Your task to perform on an android device: open app "HBO Max: Stream TV & Movies" (install if not already installed) and enter user name: "faring@outlook.com" and password: "appropriately" Image 0: 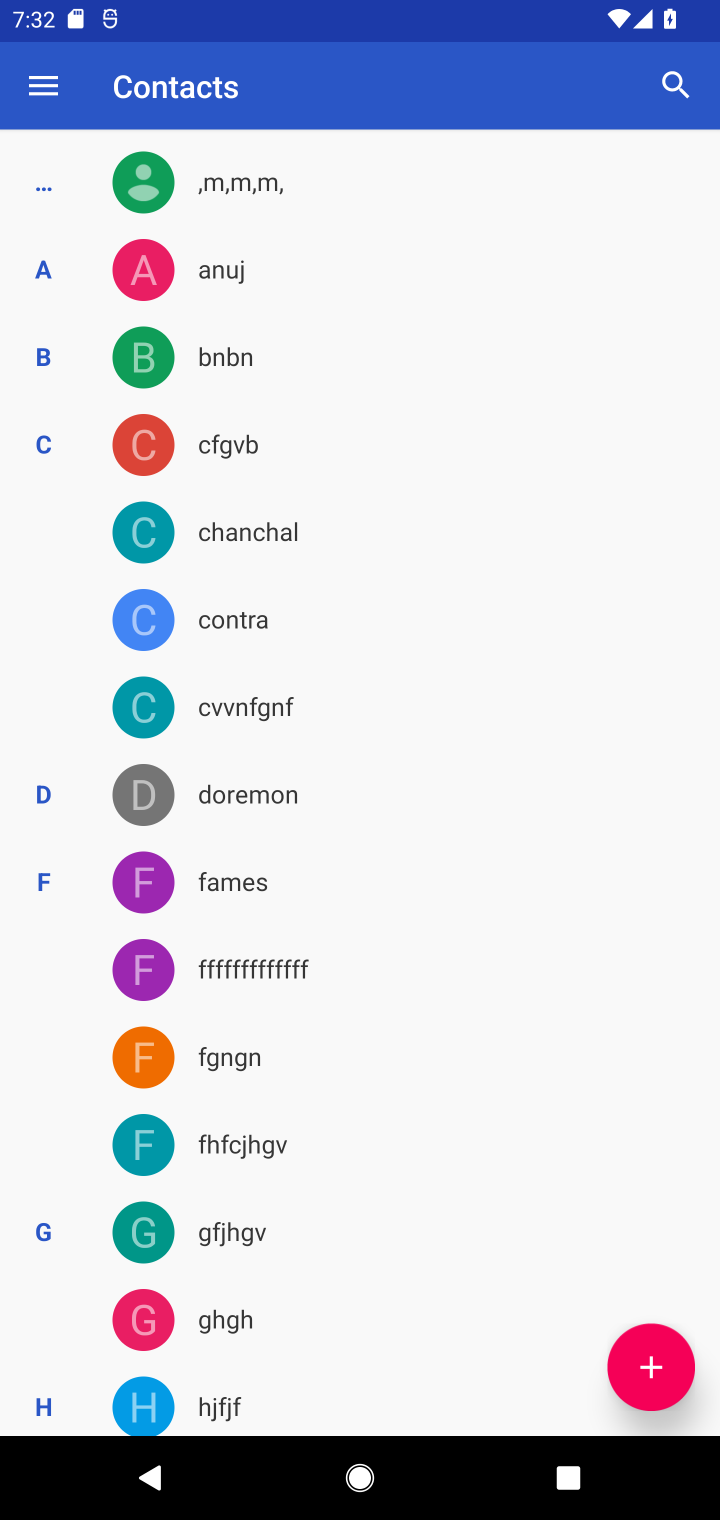
Step 0: press home button
Your task to perform on an android device: open app "HBO Max: Stream TV & Movies" (install if not already installed) and enter user name: "faring@outlook.com" and password: "appropriately" Image 1: 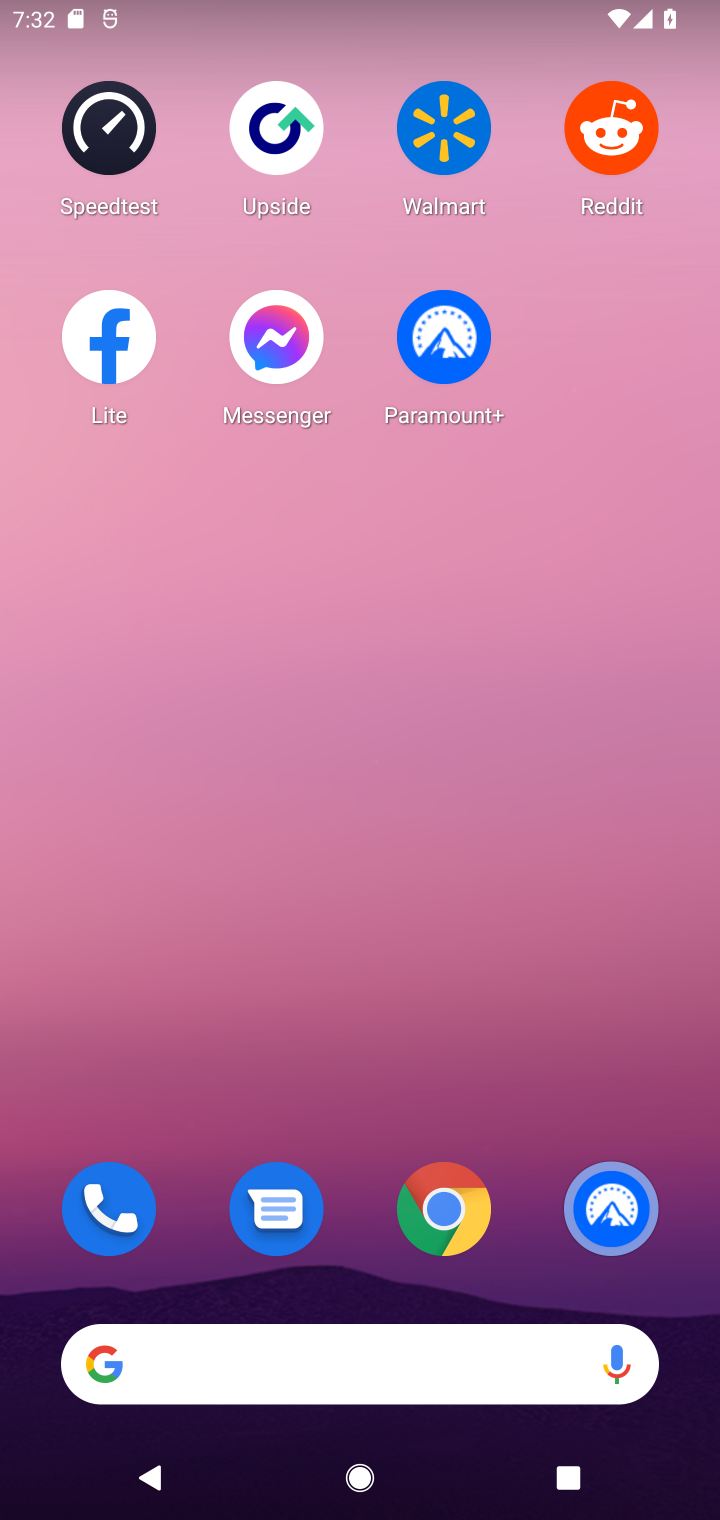
Step 1: drag from (264, 1272) to (398, 167)
Your task to perform on an android device: open app "HBO Max: Stream TV & Movies" (install if not already installed) and enter user name: "faring@outlook.com" and password: "appropriately" Image 2: 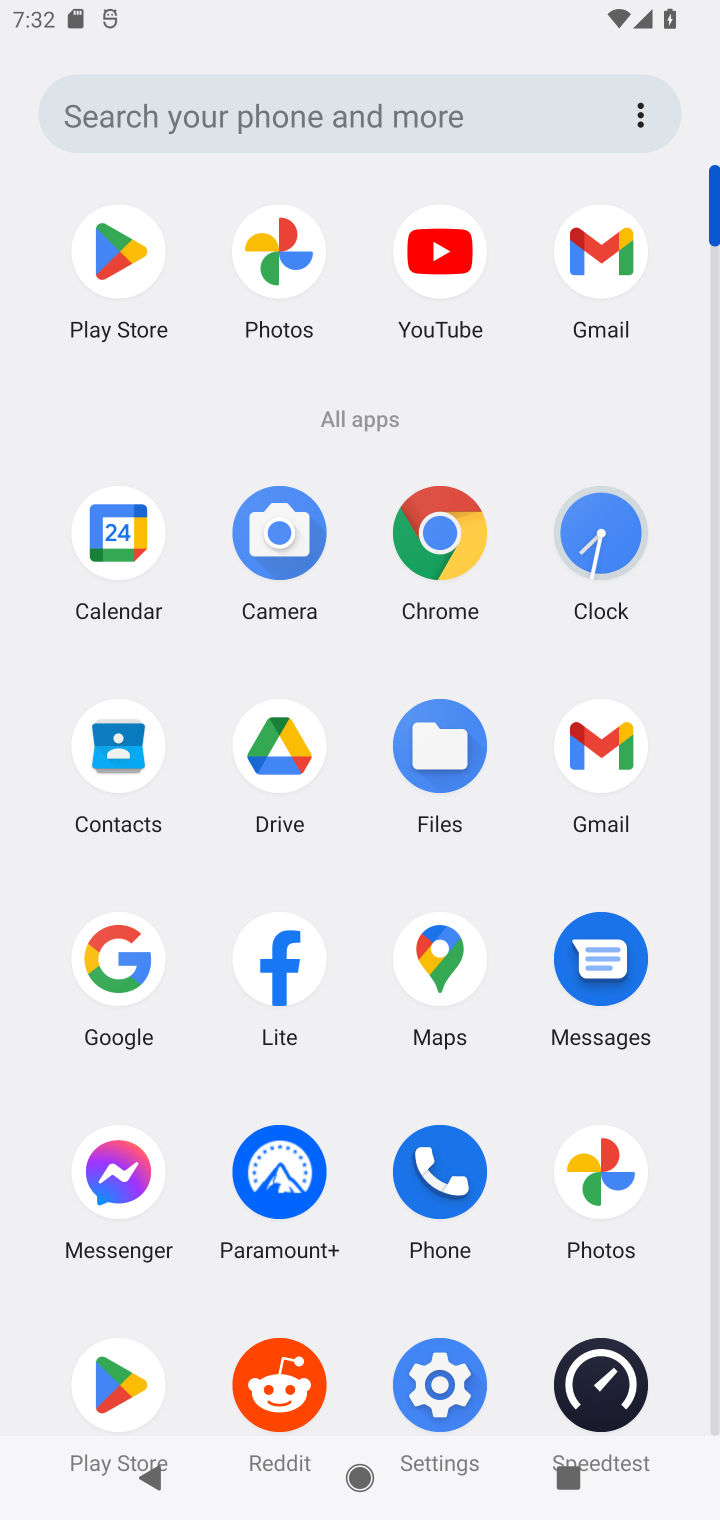
Step 2: click (102, 1391)
Your task to perform on an android device: open app "HBO Max: Stream TV & Movies" (install if not already installed) and enter user name: "faring@outlook.com" and password: "appropriately" Image 3: 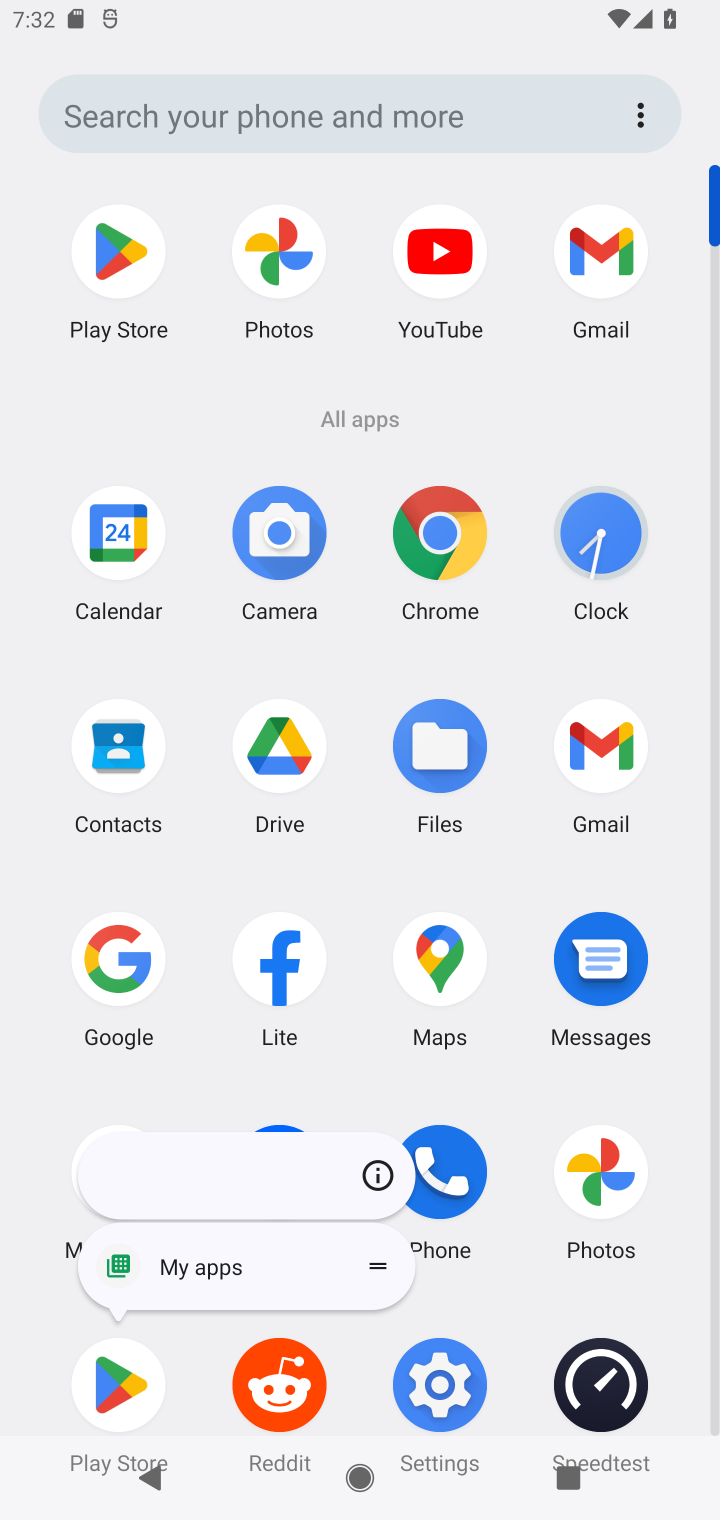
Step 3: click (104, 1393)
Your task to perform on an android device: open app "HBO Max: Stream TV & Movies" (install if not already installed) and enter user name: "faring@outlook.com" and password: "appropriately" Image 4: 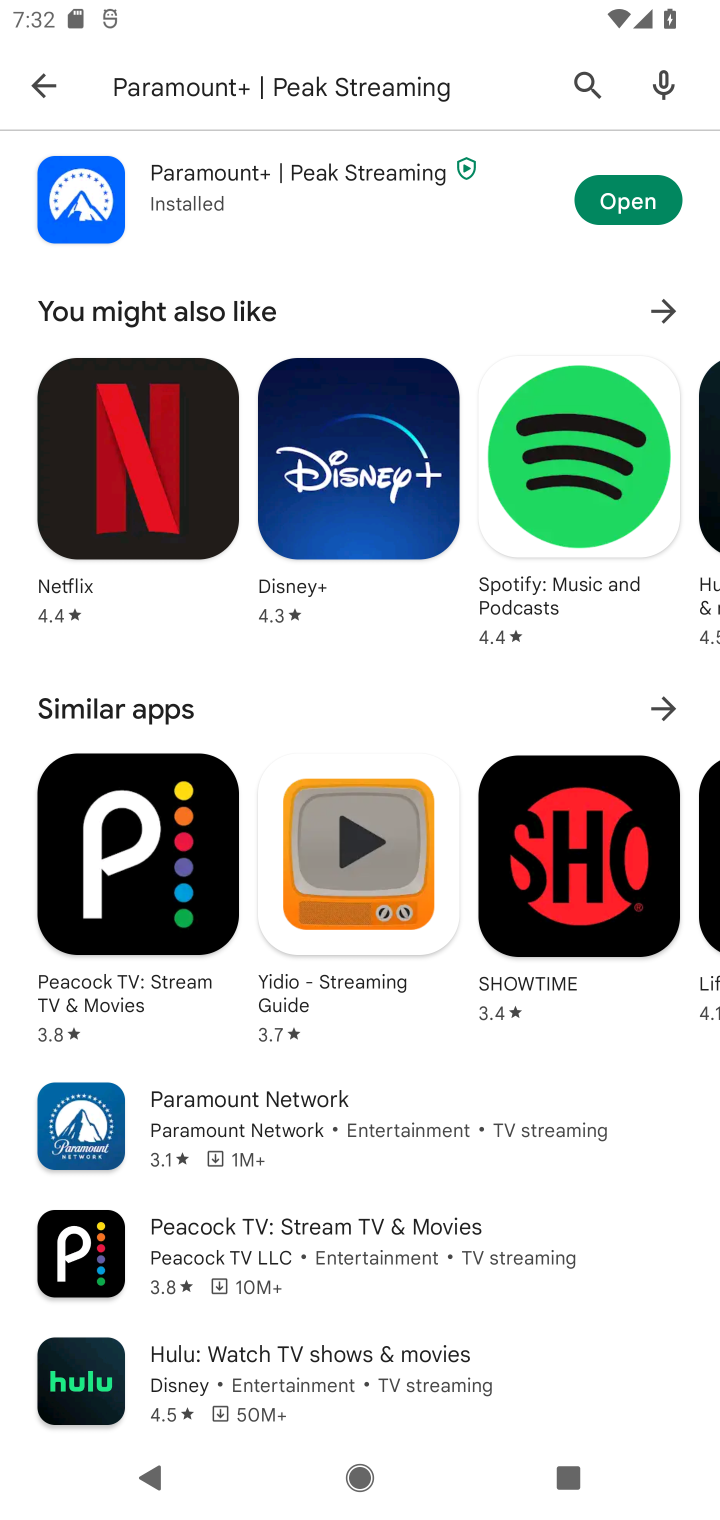
Step 4: press back button
Your task to perform on an android device: open app "HBO Max: Stream TV & Movies" (install if not already installed) and enter user name: "faring@outlook.com" and password: "appropriately" Image 5: 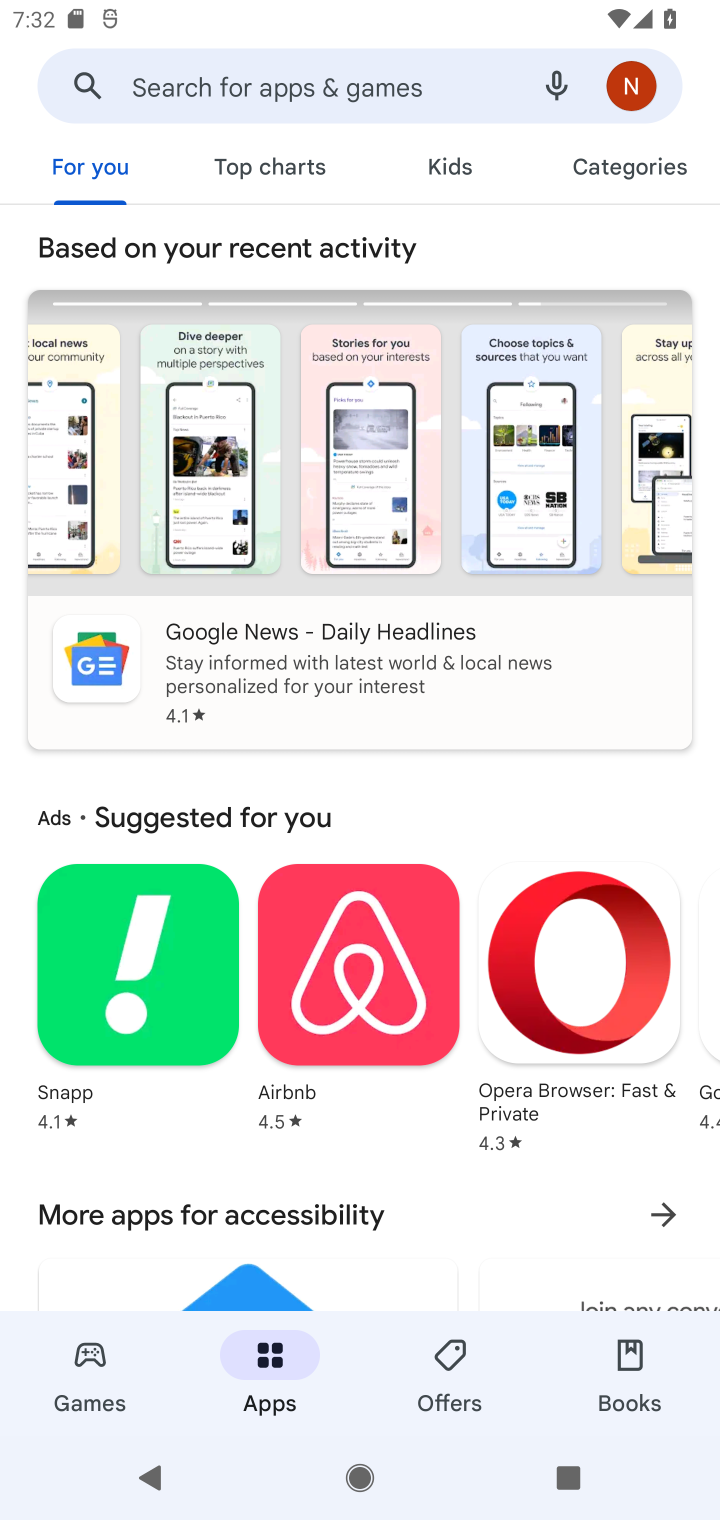
Step 5: click (392, 82)
Your task to perform on an android device: open app "HBO Max: Stream TV & Movies" (install if not already installed) and enter user name: "faring@outlook.com" and password: "appropriately" Image 6: 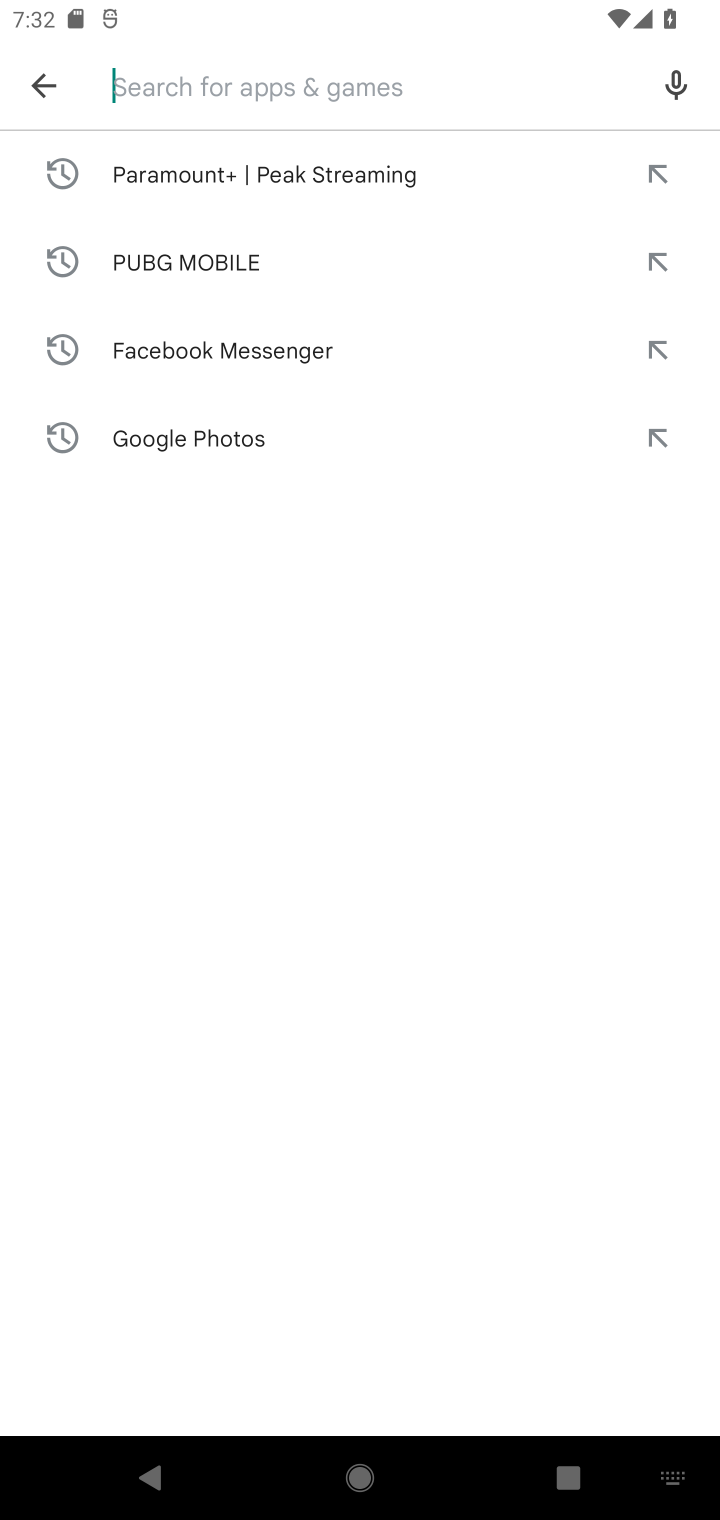
Step 6: type "HBO Max: Stream TV & Movies"
Your task to perform on an android device: open app "HBO Max: Stream TV & Movies" (install if not already installed) and enter user name: "faring@outlook.com" and password: "appropriately" Image 7: 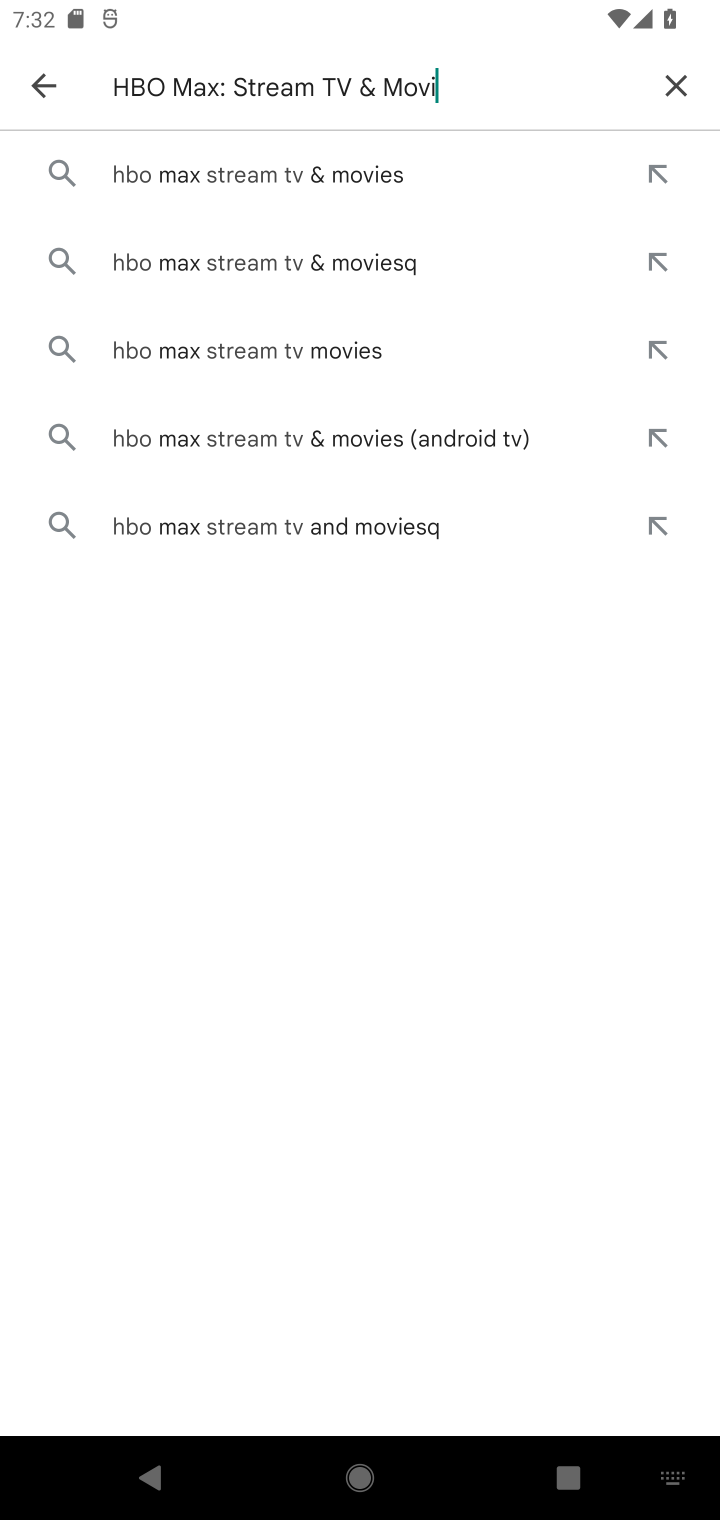
Step 7: press enter
Your task to perform on an android device: open app "HBO Max: Stream TV & Movies" (install if not already installed) and enter user name: "faring@outlook.com" and password: "appropriately" Image 8: 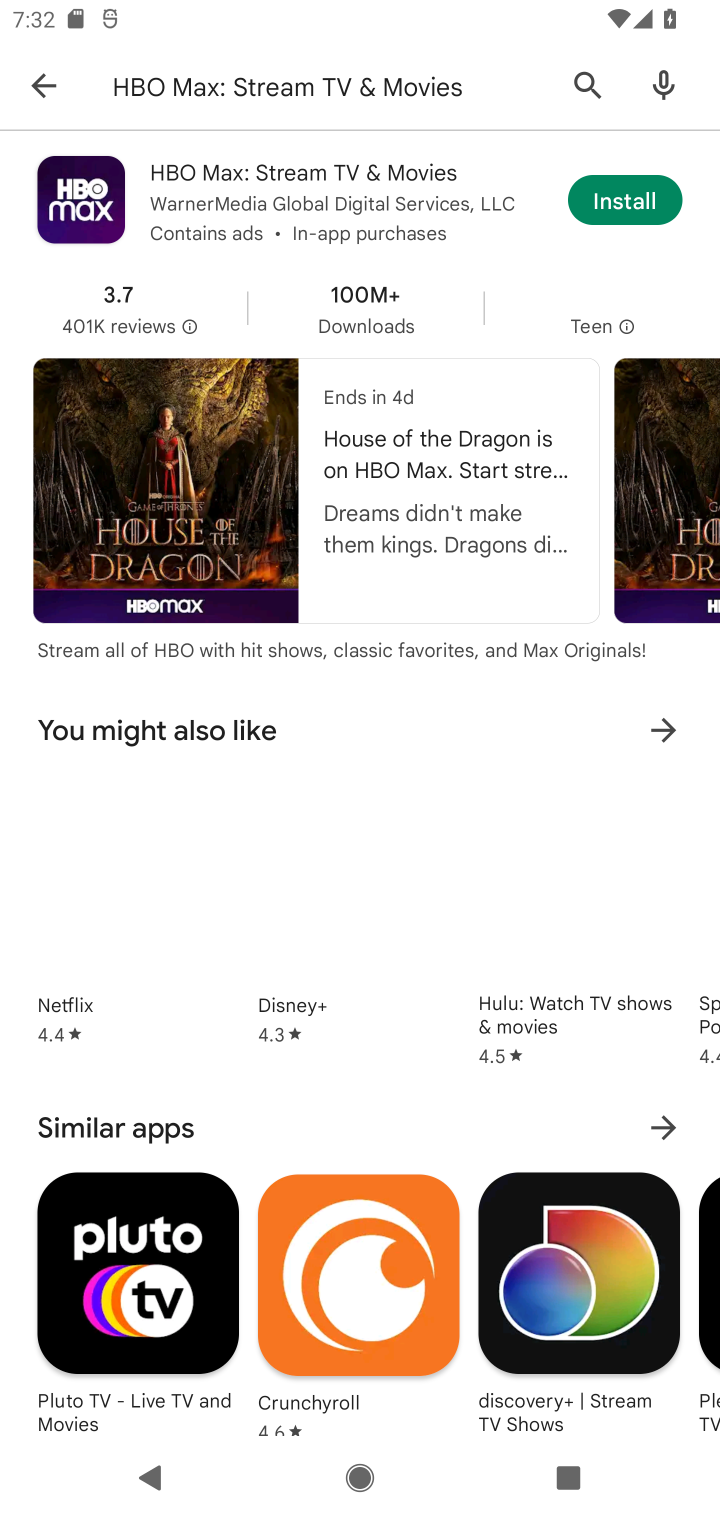
Step 8: click (633, 200)
Your task to perform on an android device: open app "HBO Max: Stream TV & Movies" (install if not already installed) and enter user name: "faring@outlook.com" and password: "appropriately" Image 9: 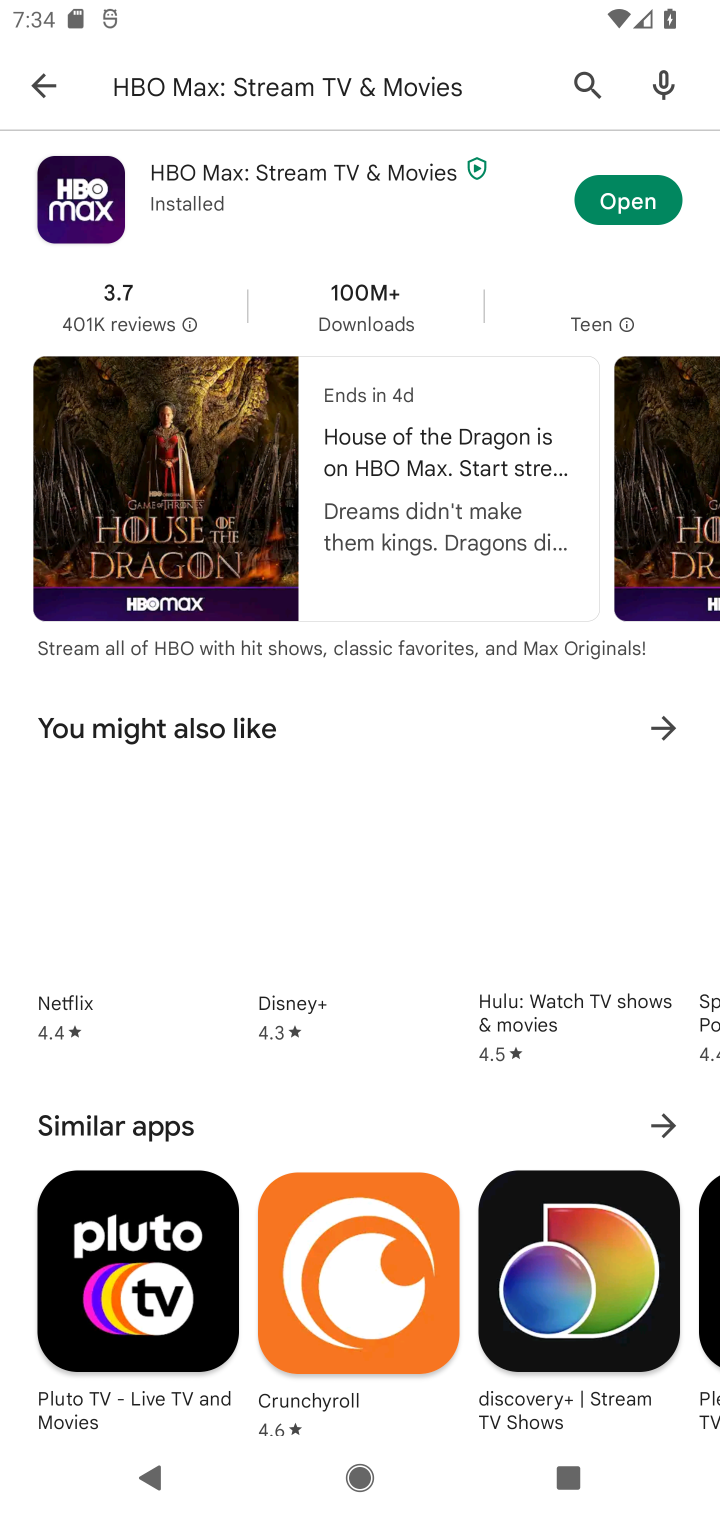
Step 9: click (641, 231)
Your task to perform on an android device: open app "HBO Max: Stream TV & Movies" (install if not already installed) and enter user name: "faring@outlook.com" and password: "appropriately" Image 10: 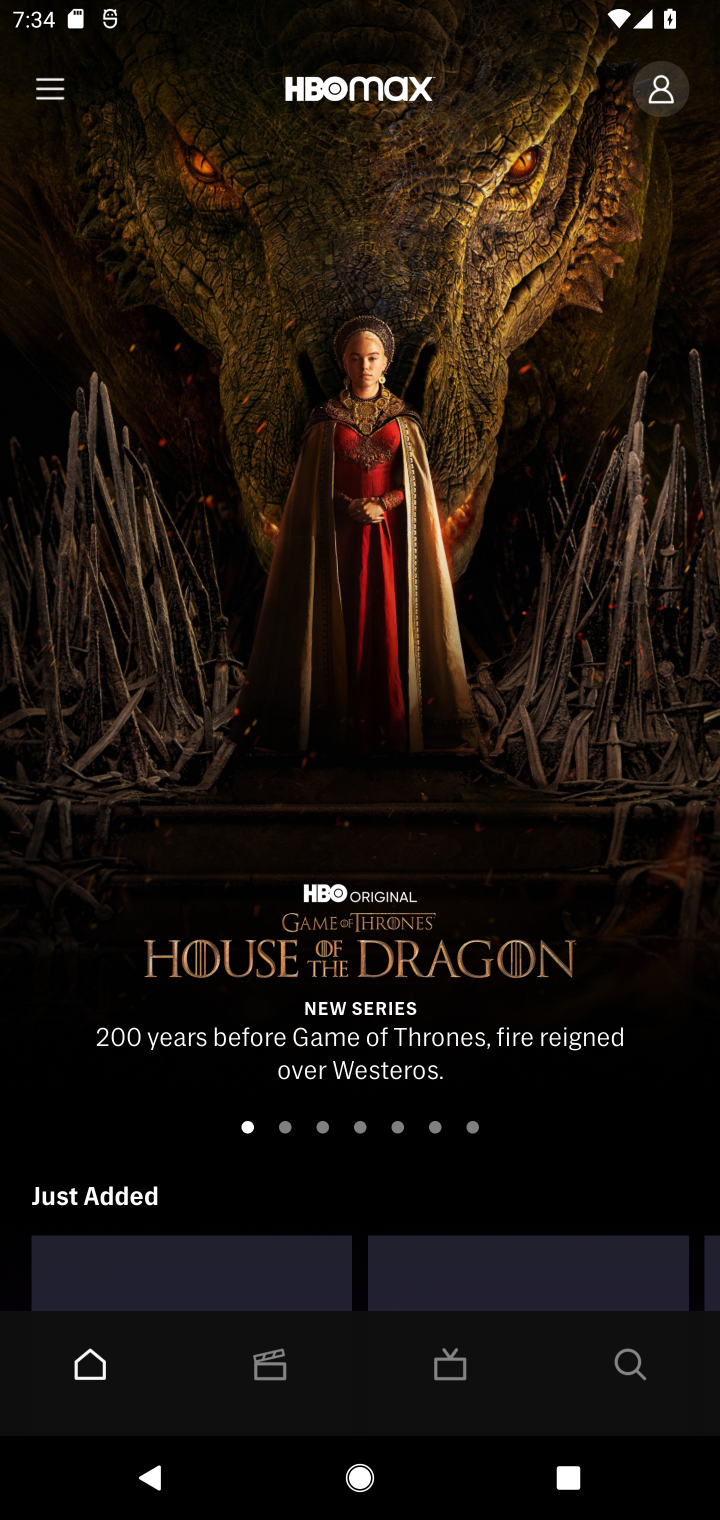
Step 10: click (41, 779)
Your task to perform on an android device: open app "HBO Max: Stream TV & Movies" (install if not already installed) and enter user name: "faring@outlook.com" and password: "appropriately" Image 11: 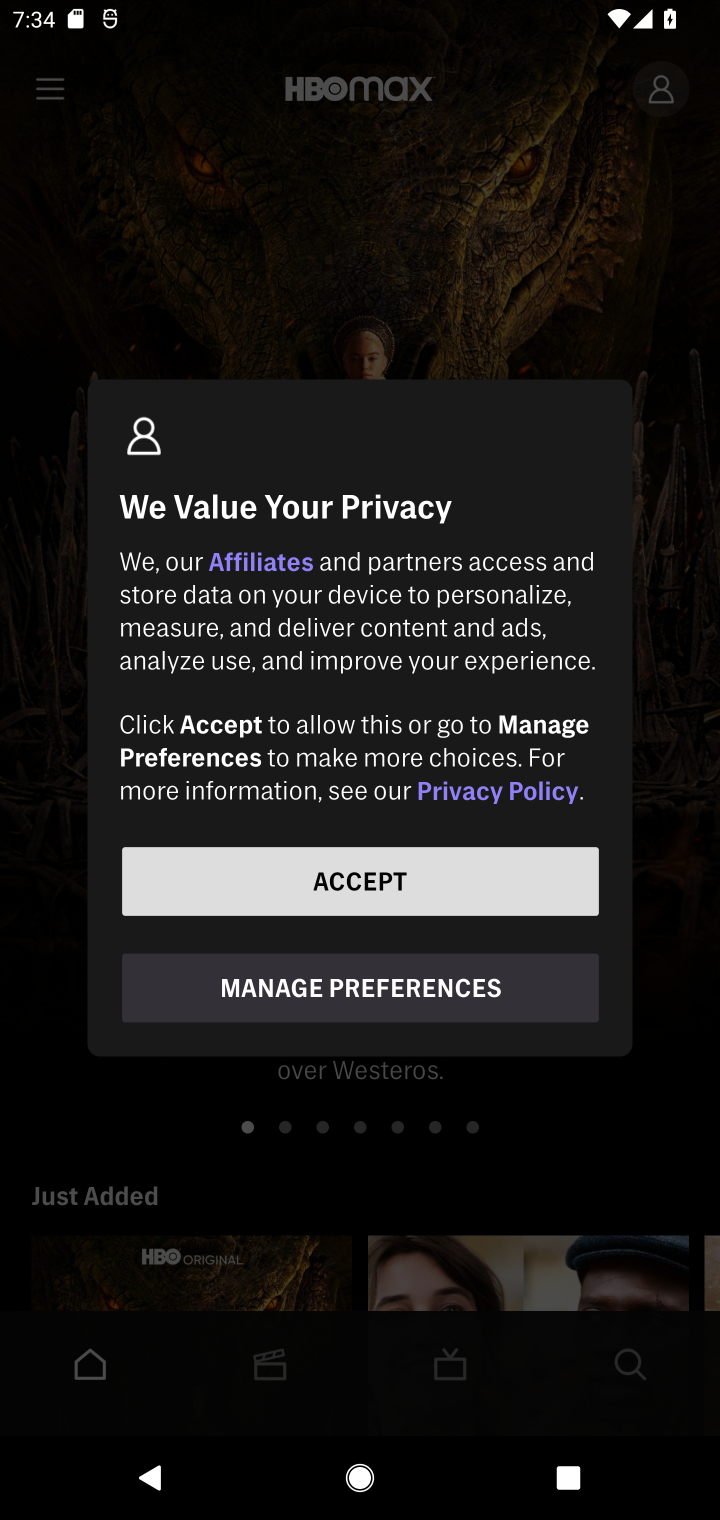
Step 11: click (403, 883)
Your task to perform on an android device: open app "HBO Max: Stream TV & Movies" (install if not already installed) and enter user name: "faring@outlook.com" and password: "appropriately" Image 12: 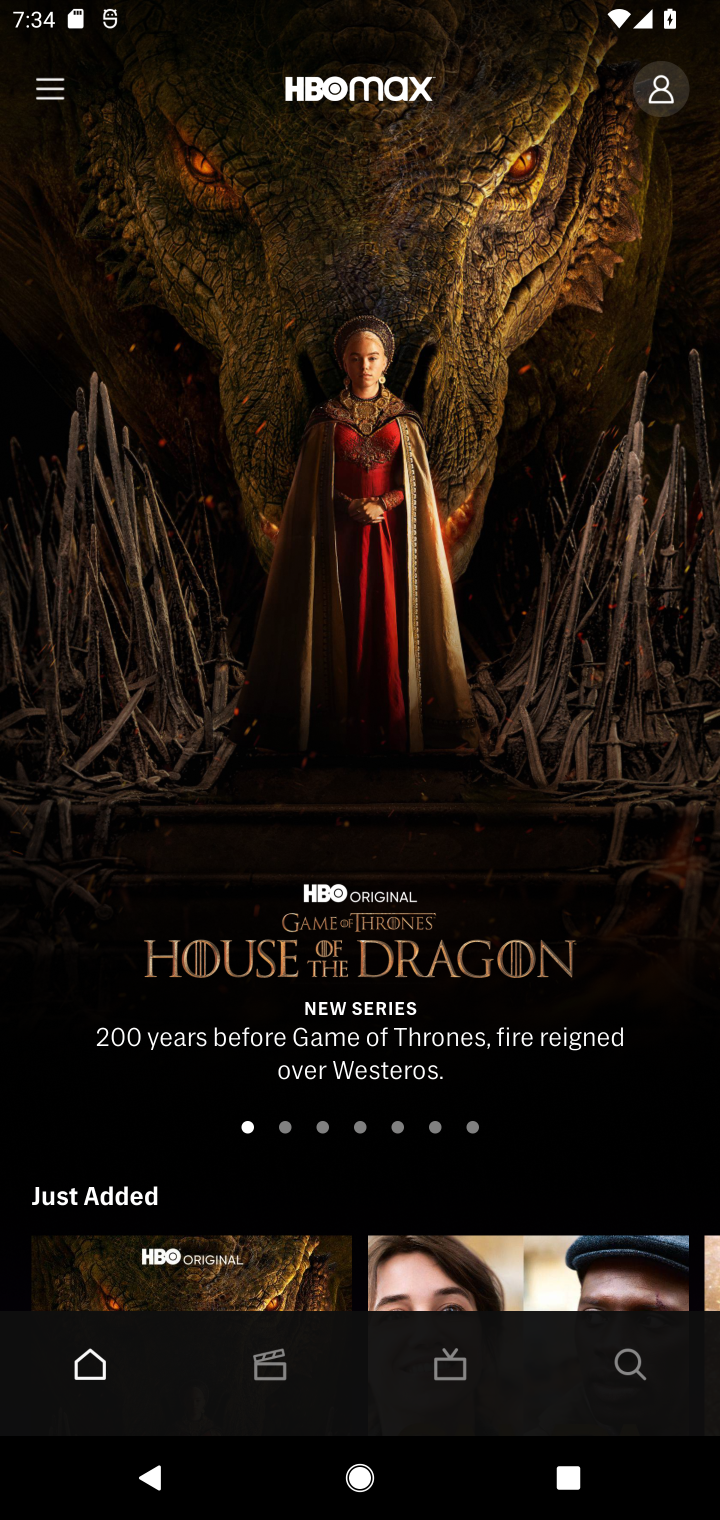
Step 12: task complete